Your task to perform on an android device: toggle wifi Image 0: 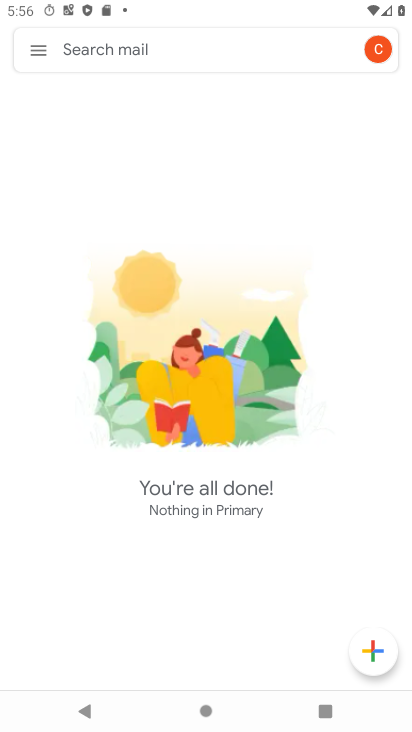
Step 0: press home button
Your task to perform on an android device: toggle wifi Image 1: 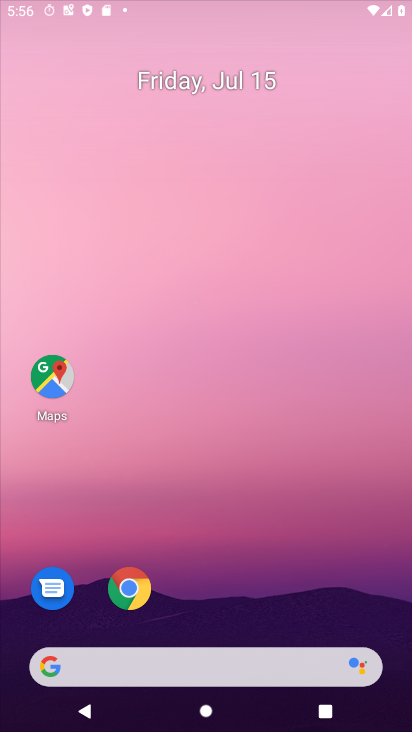
Step 1: drag from (299, 685) to (411, 74)
Your task to perform on an android device: toggle wifi Image 2: 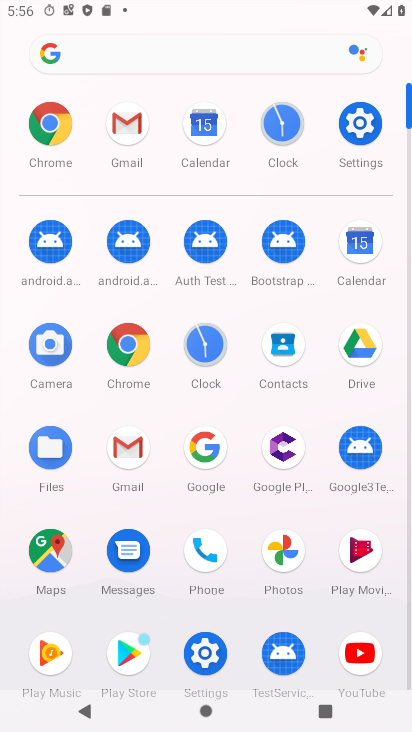
Step 2: click (367, 109)
Your task to perform on an android device: toggle wifi Image 3: 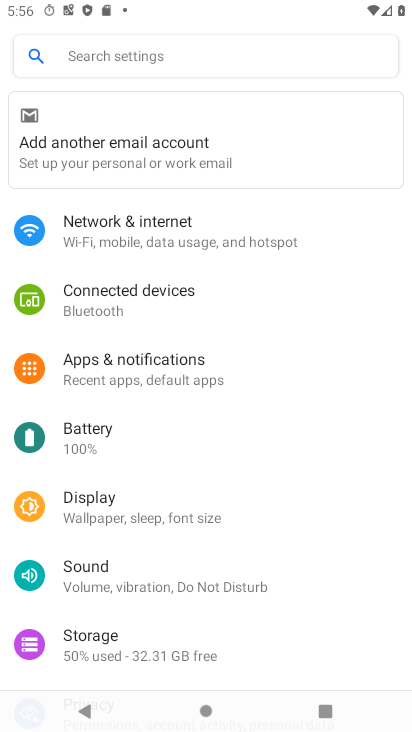
Step 3: click (237, 241)
Your task to perform on an android device: toggle wifi Image 4: 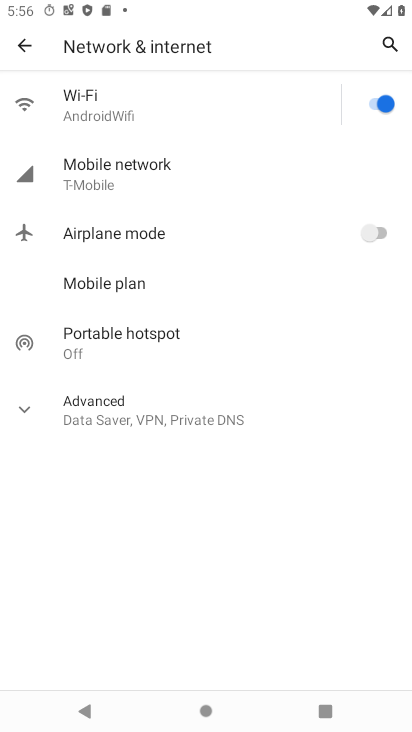
Step 4: click (375, 99)
Your task to perform on an android device: toggle wifi Image 5: 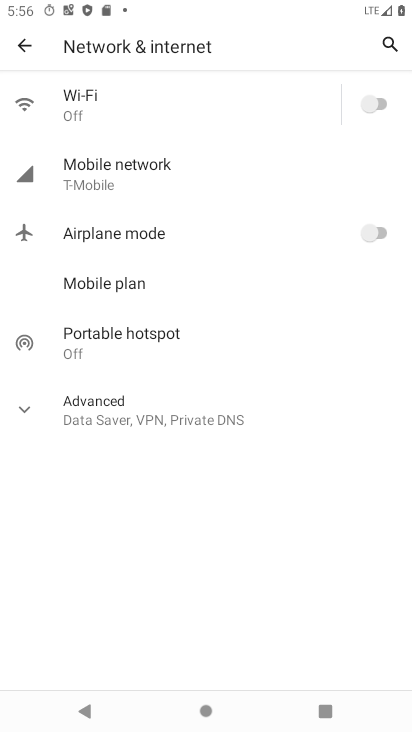
Step 5: task complete